Your task to perform on an android device: Show me recent news Image 0: 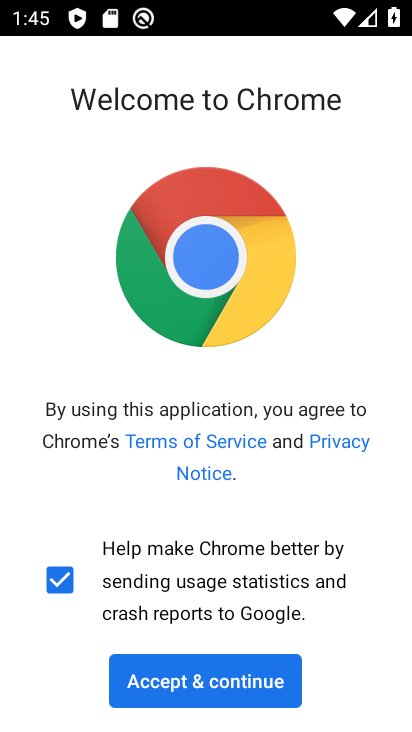
Step 0: press home button
Your task to perform on an android device: Show me recent news Image 1: 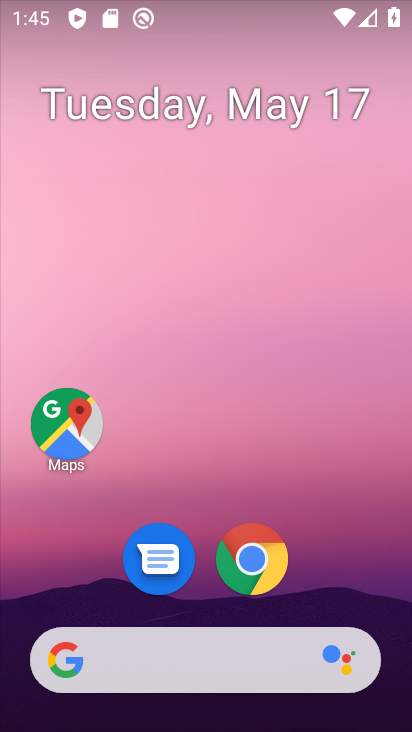
Step 1: task complete